Your task to perform on an android device: uninstall "Cash App" Image 0: 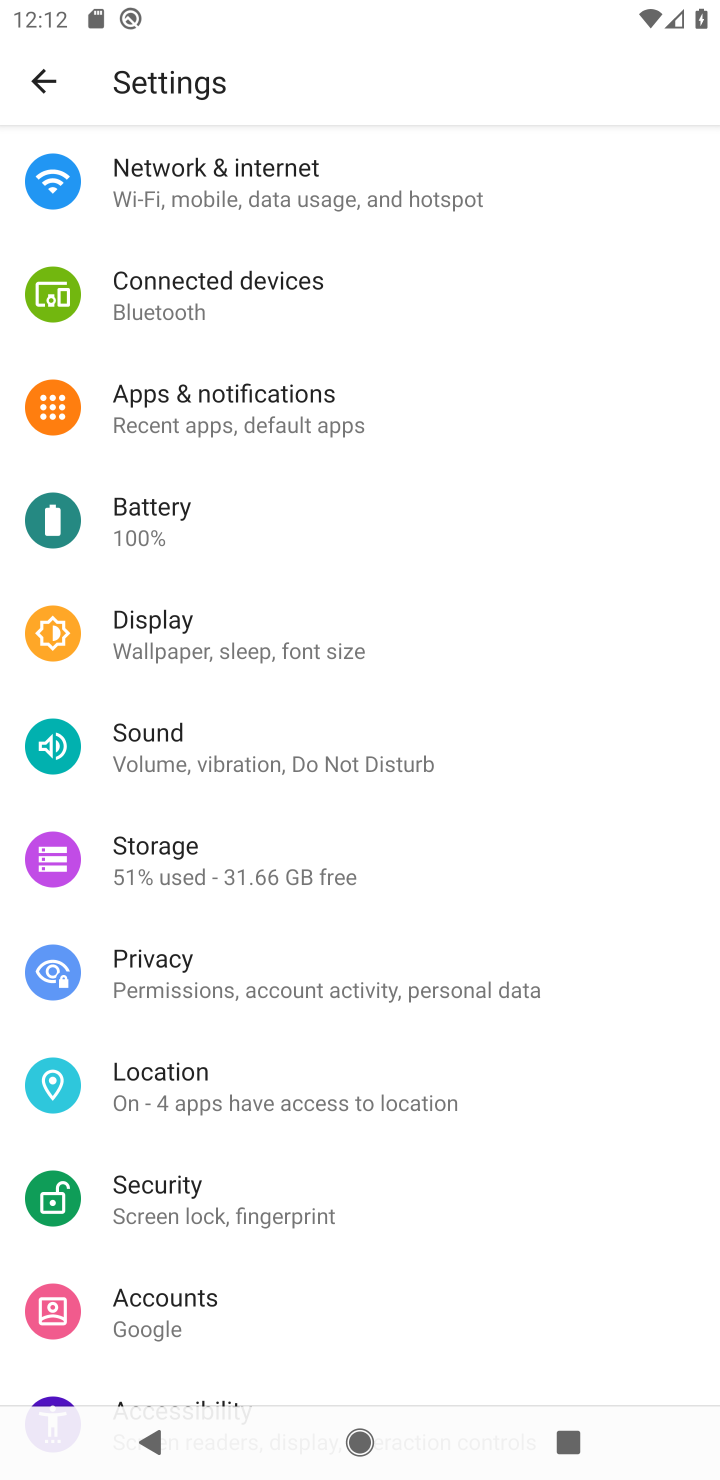
Step 0: press home button
Your task to perform on an android device: uninstall "Cash App" Image 1: 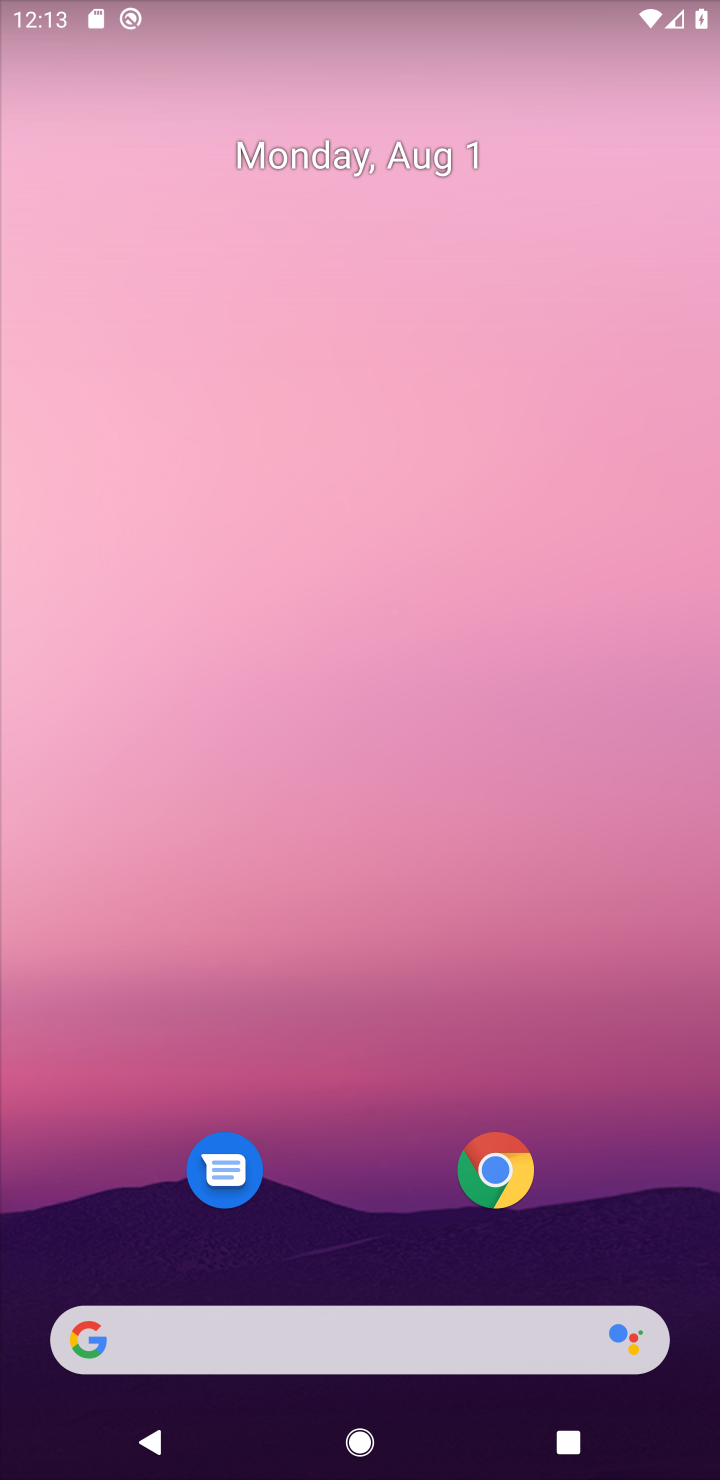
Step 1: drag from (681, 1135) to (365, 0)
Your task to perform on an android device: uninstall "Cash App" Image 2: 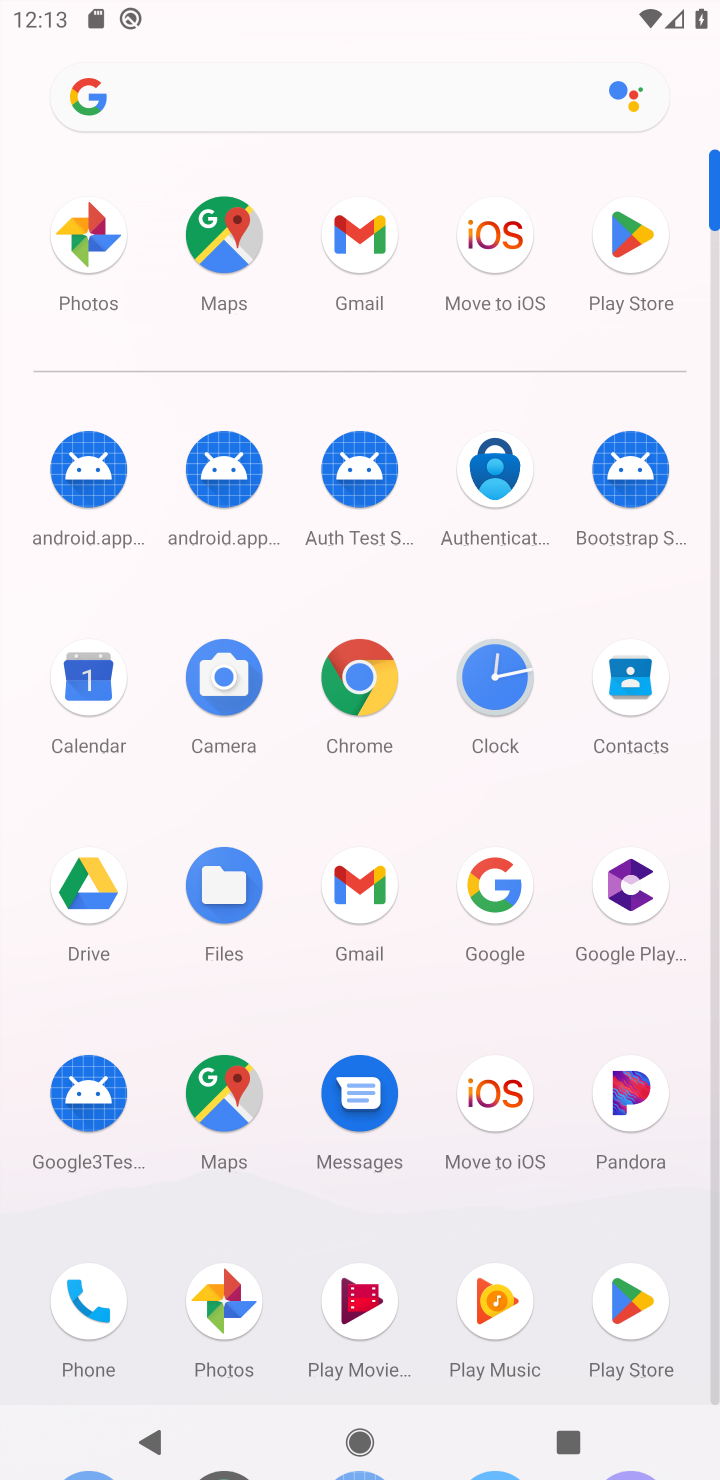
Step 2: click (639, 301)
Your task to perform on an android device: uninstall "Cash App" Image 3: 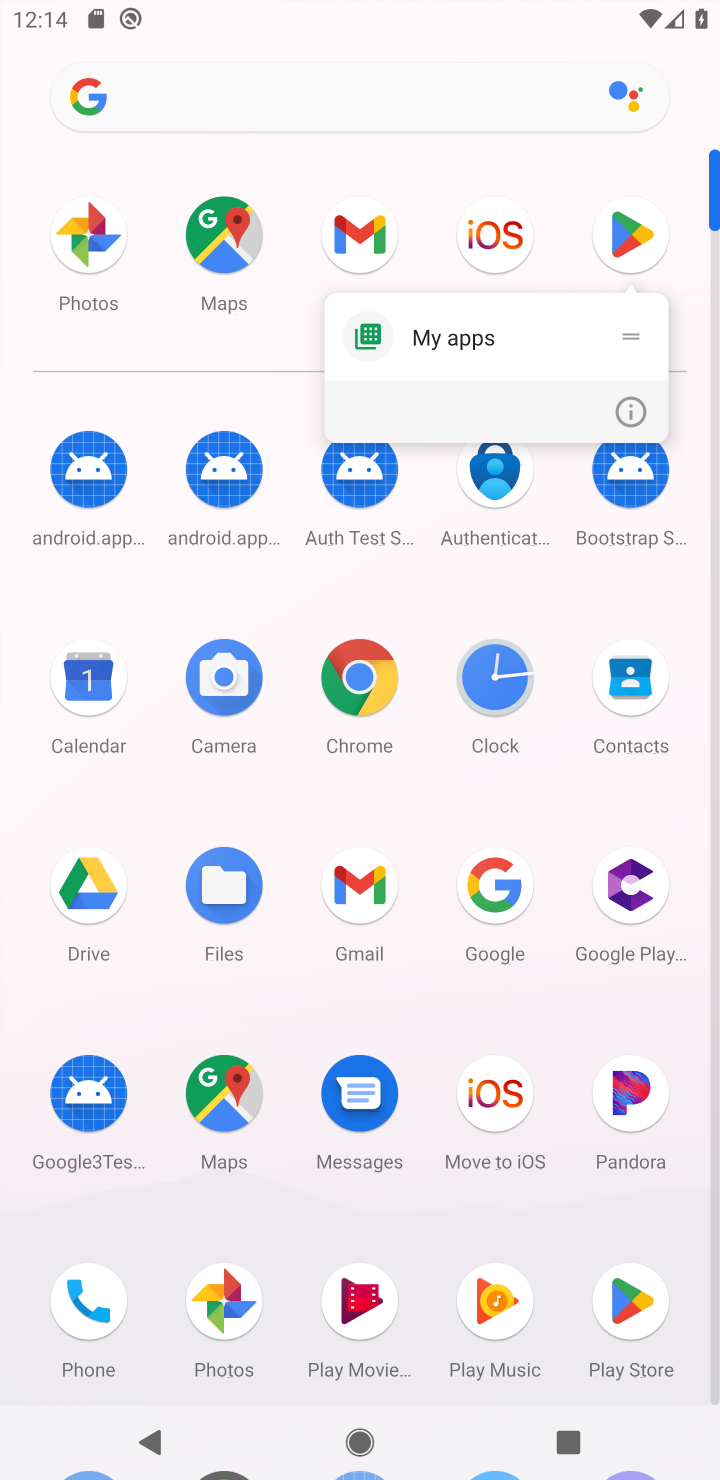
Step 3: click (617, 227)
Your task to perform on an android device: uninstall "Cash App" Image 4: 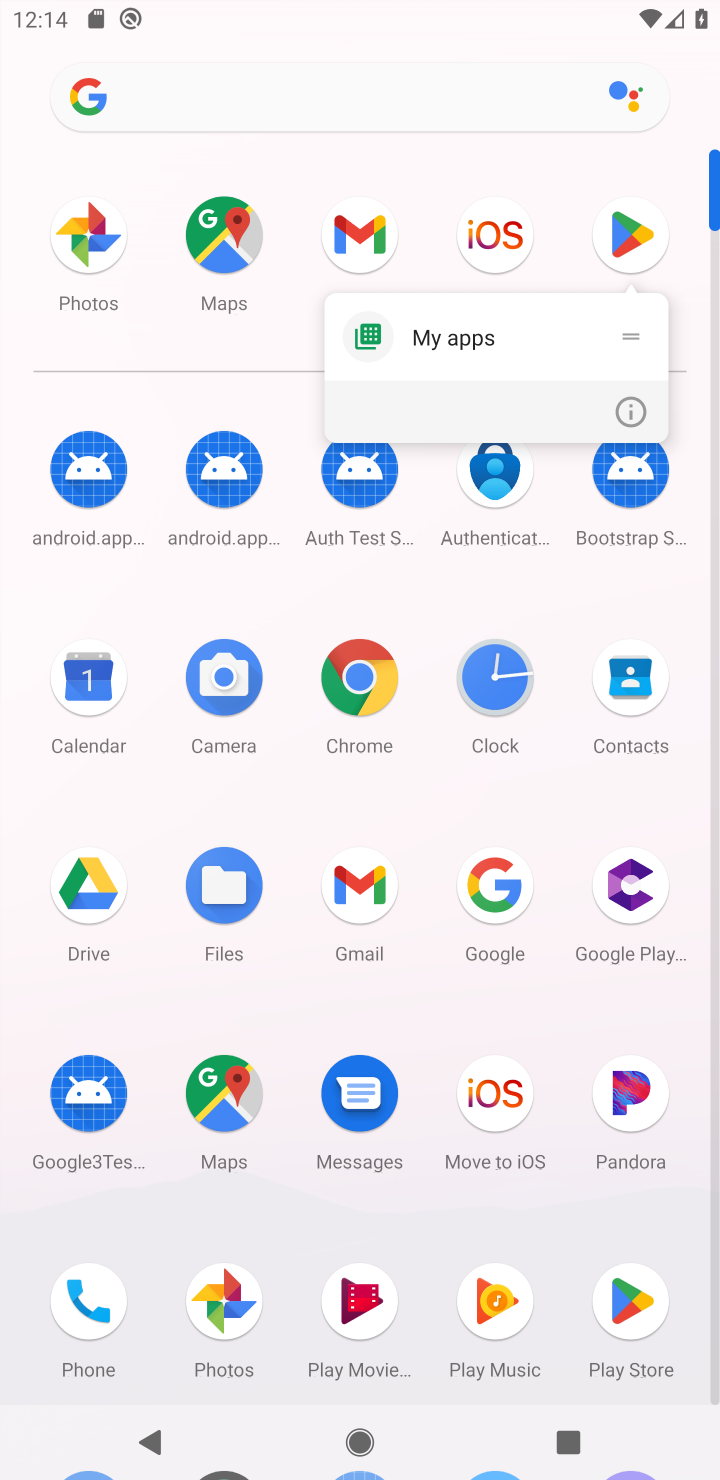
Step 4: click (622, 202)
Your task to perform on an android device: uninstall "Cash App" Image 5: 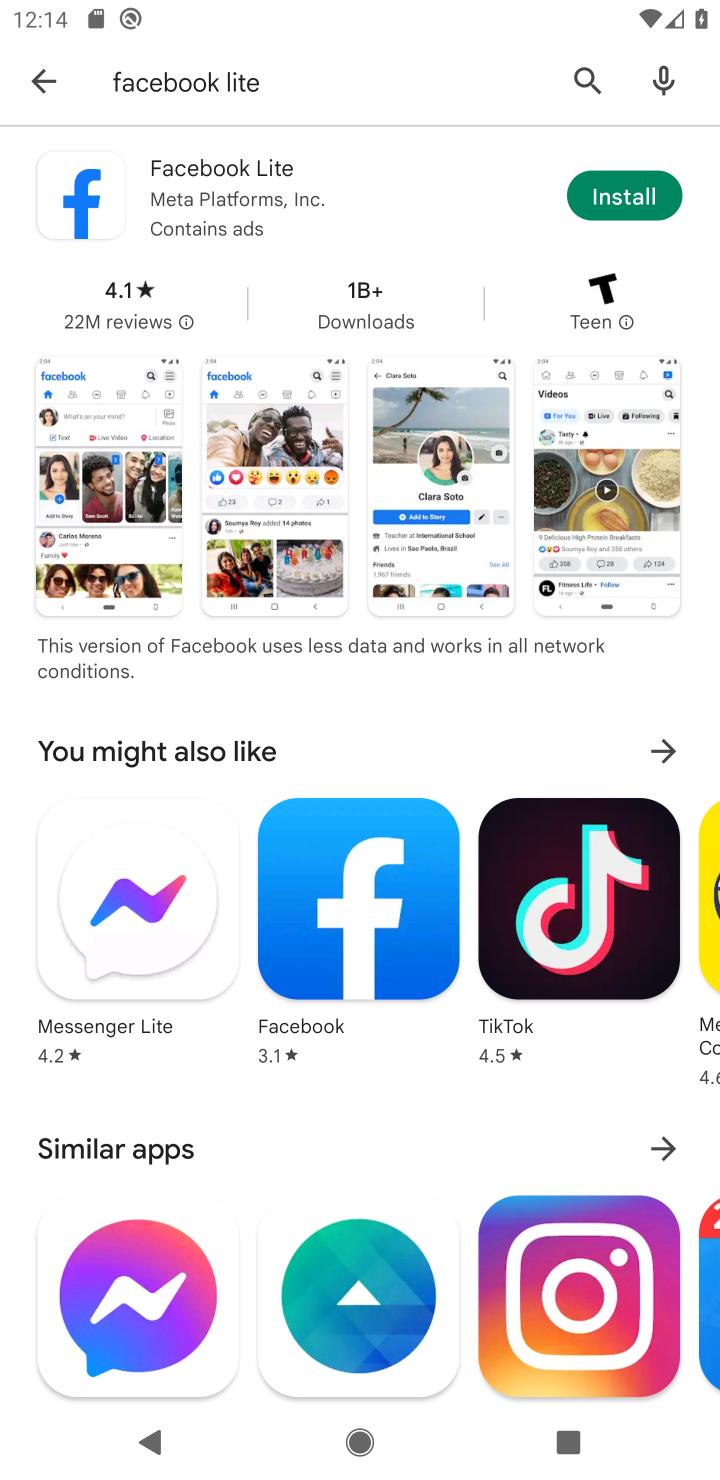
Step 5: press back button
Your task to perform on an android device: uninstall "Cash App" Image 6: 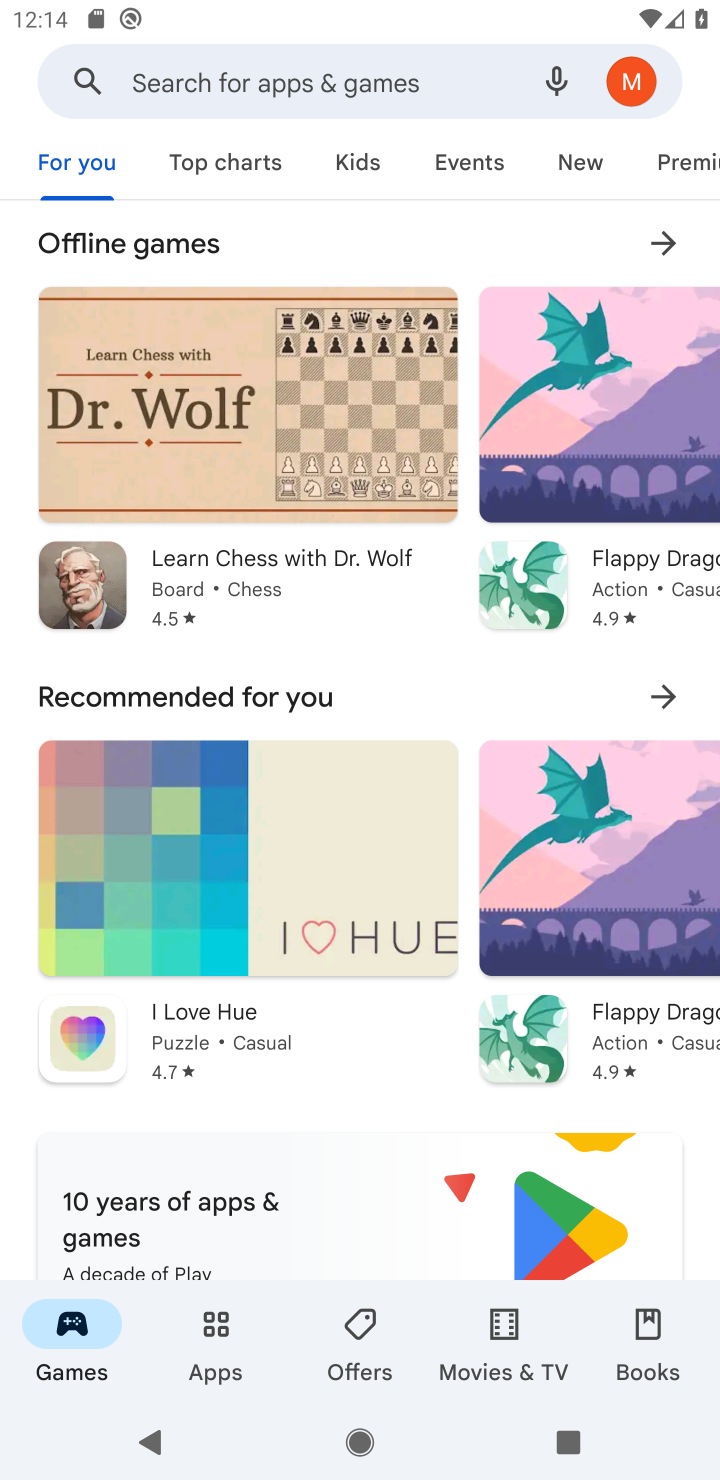
Step 6: click (226, 84)
Your task to perform on an android device: uninstall "Cash App" Image 7: 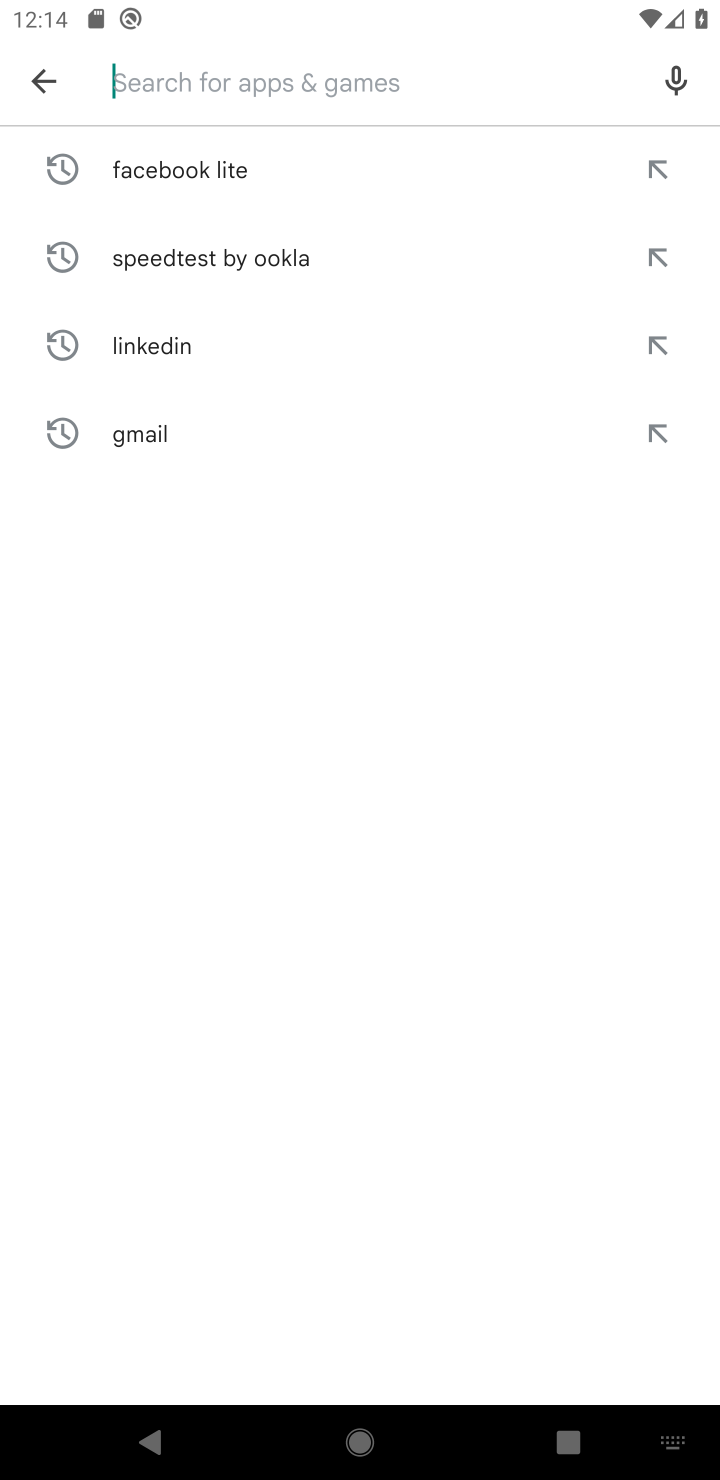
Step 7: type "Cash App"
Your task to perform on an android device: uninstall "Cash App" Image 8: 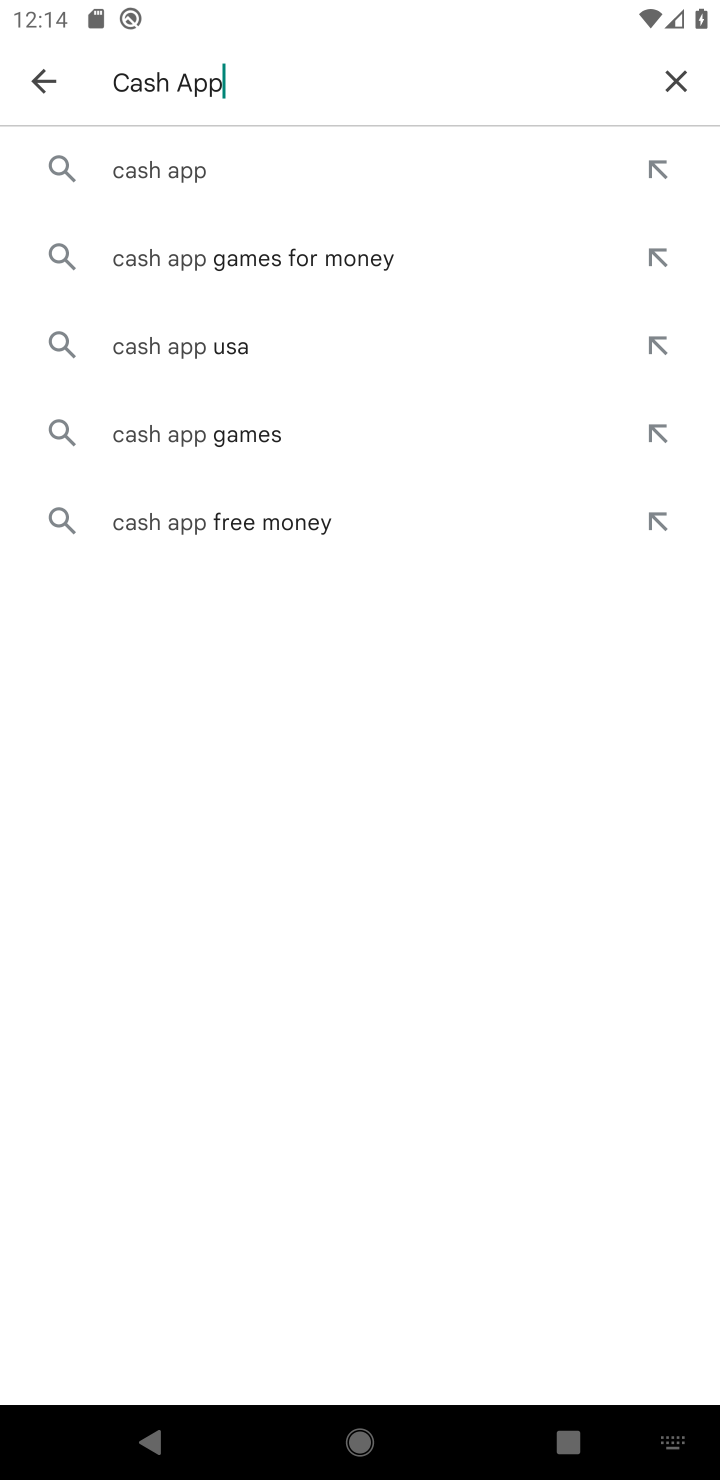
Step 8: click (170, 149)
Your task to perform on an android device: uninstall "Cash App" Image 9: 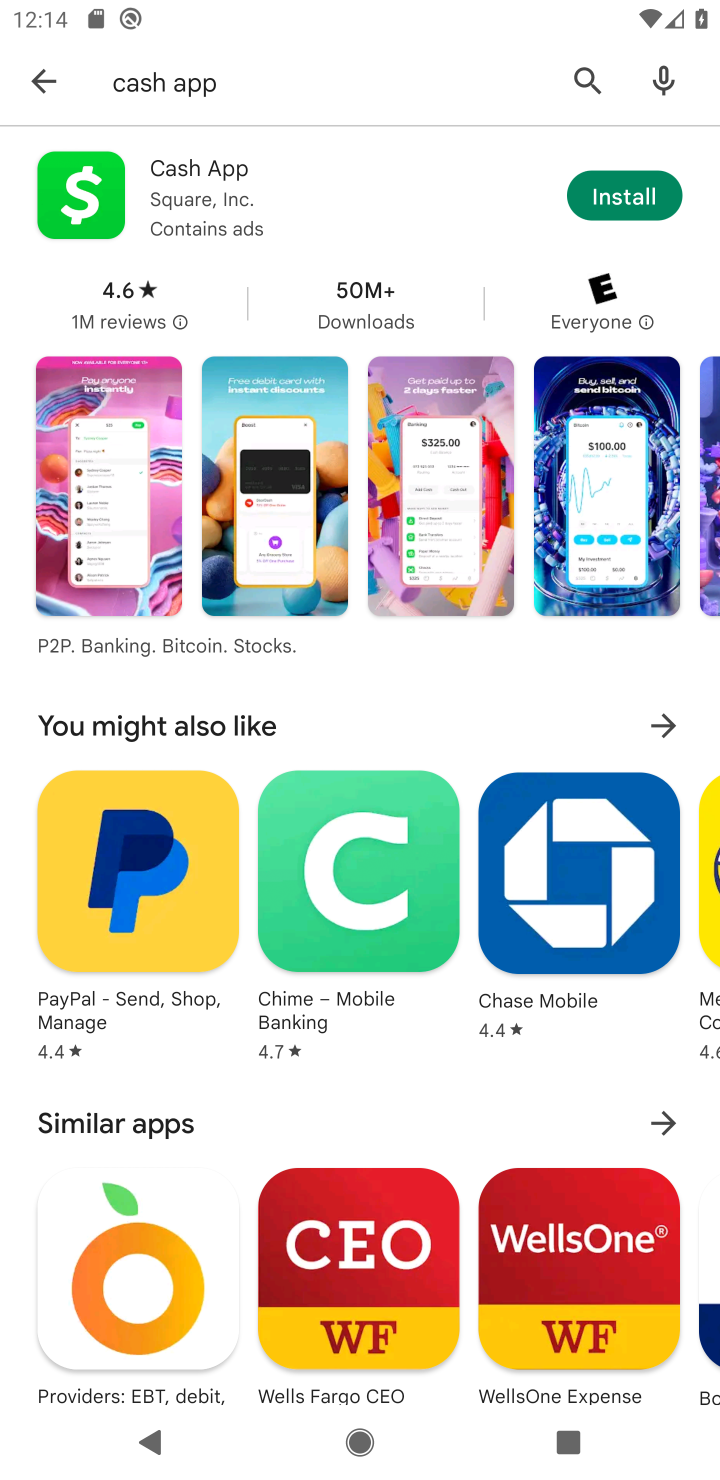
Step 9: task complete